Your task to perform on an android device: turn on improve location accuracy Image 0: 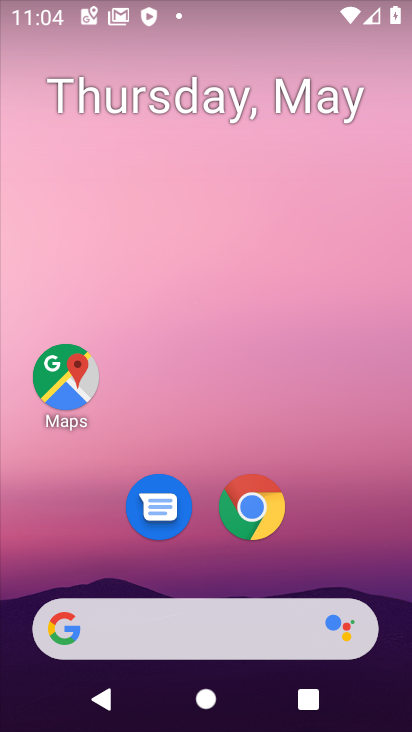
Step 0: drag from (204, 544) to (253, 58)
Your task to perform on an android device: turn on improve location accuracy Image 1: 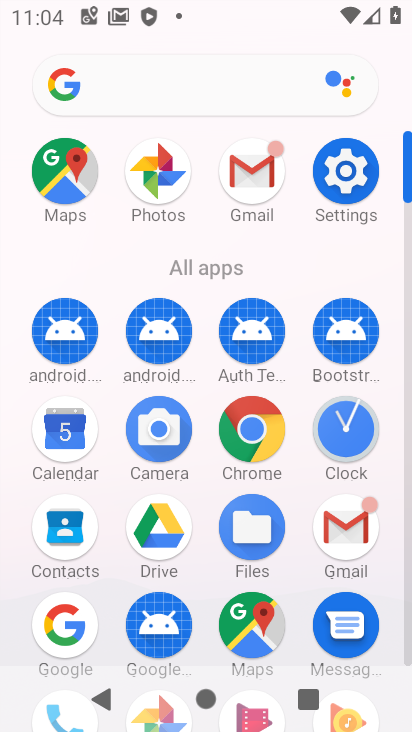
Step 1: click (344, 193)
Your task to perform on an android device: turn on improve location accuracy Image 2: 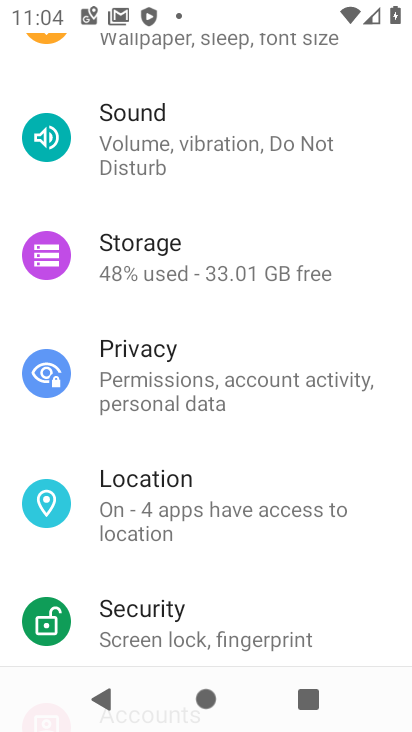
Step 2: click (190, 488)
Your task to perform on an android device: turn on improve location accuracy Image 3: 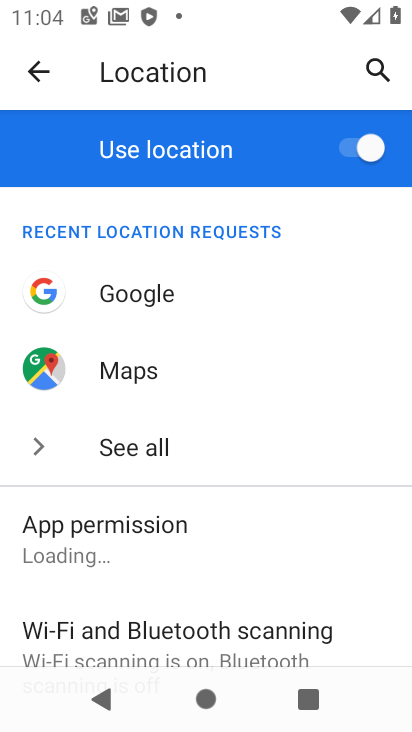
Step 3: drag from (139, 580) to (211, 211)
Your task to perform on an android device: turn on improve location accuracy Image 4: 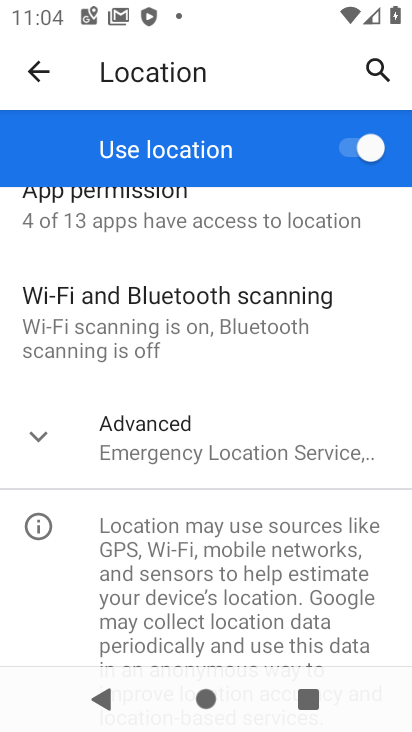
Step 4: click (166, 436)
Your task to perform on an android device: turn on improve location accuracy Image 5: 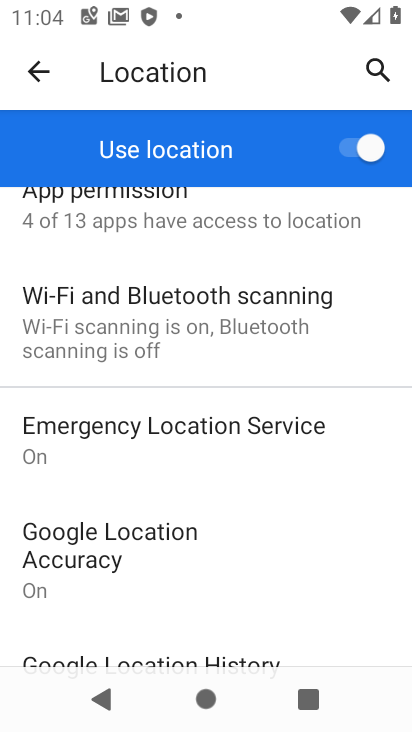
Step 5: task complete